Your task to perform on an android device: Open the calendar app, open the side menu, and click the "Day" option Image 0: 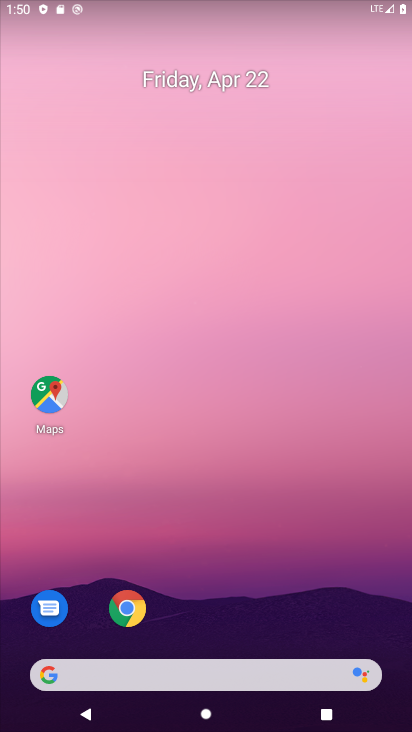
Step 0: drag from (270, 684) to (311, 107)
Your task to perform on an android device: Open the calendar app, open the side menu, and click the "Day" option Image 1: 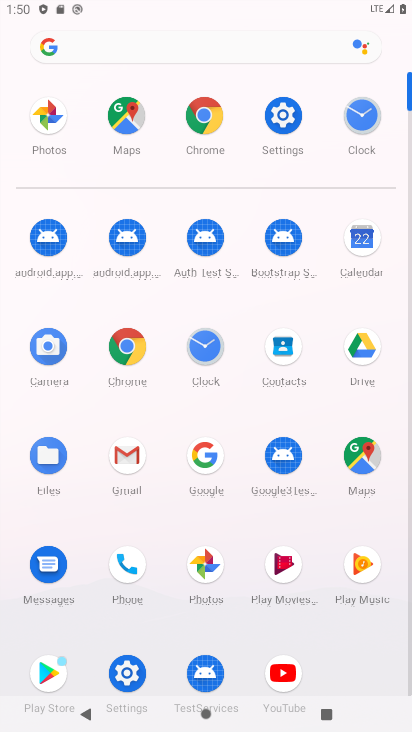
Step 1: click (360, 256)
Your task to perform on an android device: Open the calendar app, open the side menu, and click the "Day" option Image 2: 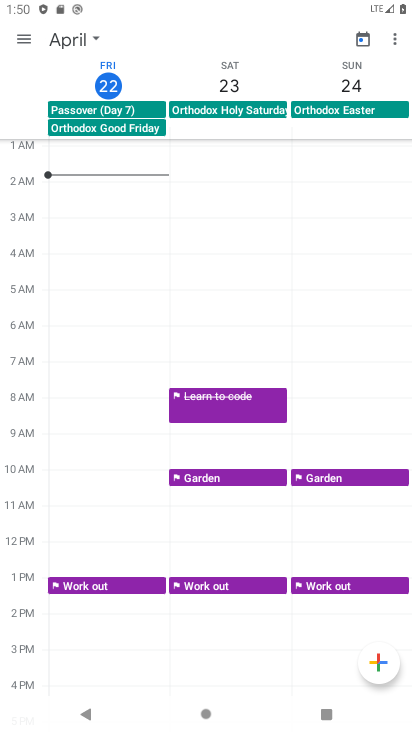
Step 2: click (26, 36)
Your task to perform on an android device: Open the calendar app, open the side menu, and click the "Day" option Image 3: 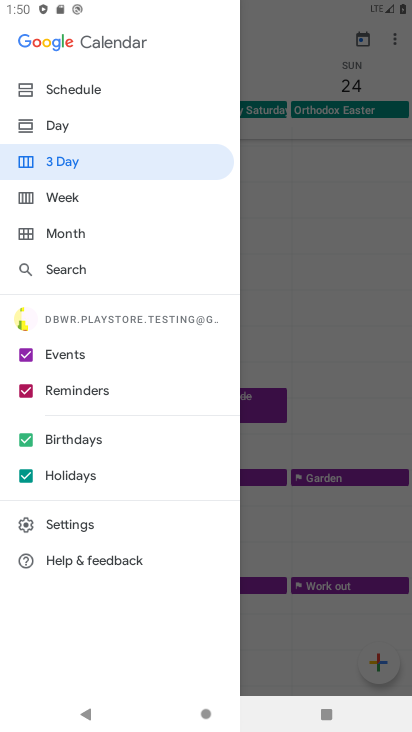
Step 3: click (94, 134)
Your task to perform on an android device: Open the calendar app, open the side menu, and click the "Day" option Image 4: 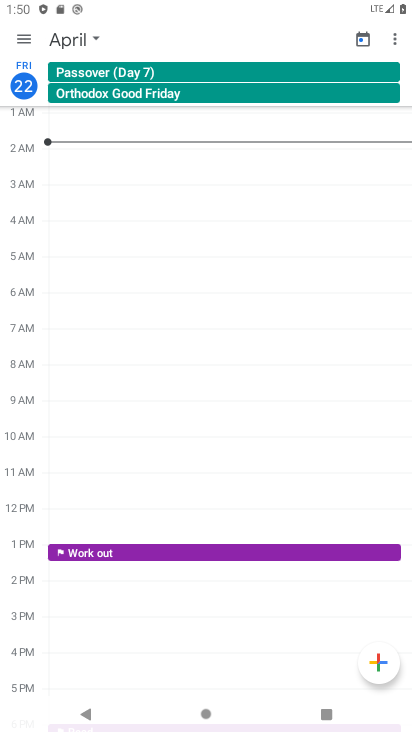
Step 4: task complete